Your task to perform on an android device: Open Yahoo.com Image 0: 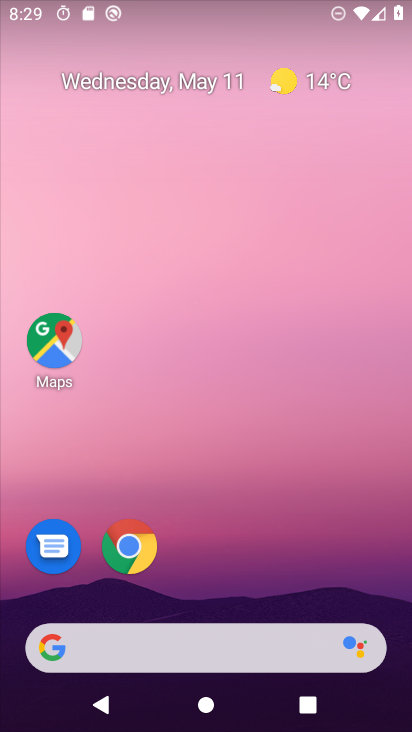
Step 0: click (138, 557)
Your task to perform on an android device: Open Yahoo.com Image 1: 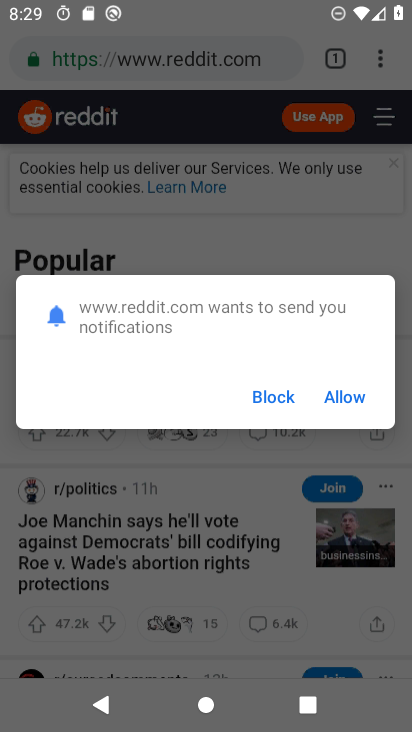
Step 1: click (359, 410)
Your task to perform on an android device: Open Yahoo.com Image 2: 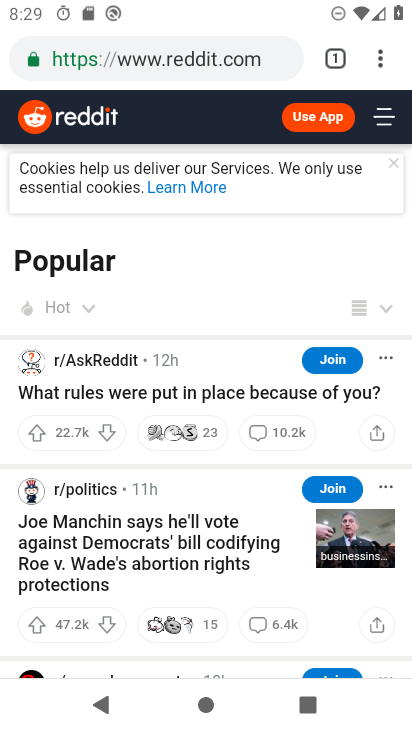
Step 2: click (151, 44)
Your task to perform on an android device: Open Yahoo.com Image 3: 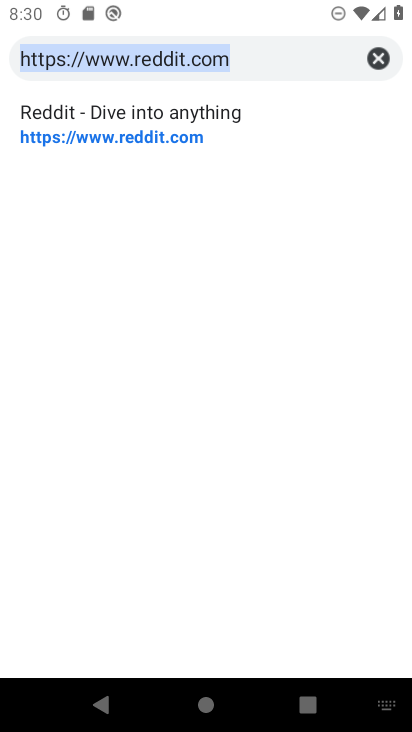
Step 3: type "yahoo.com"
Your task to perform on an android device: Open Yahoo.com Image 4: 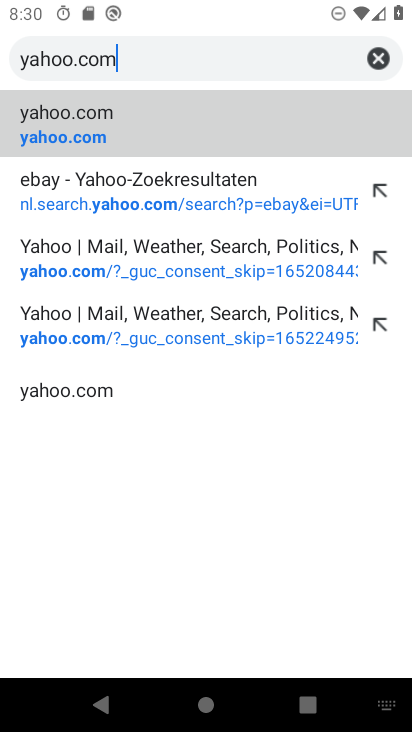
Step 4: click (253, 145)
Your task to perform on an android device: Open Yahoo.com Image 5: 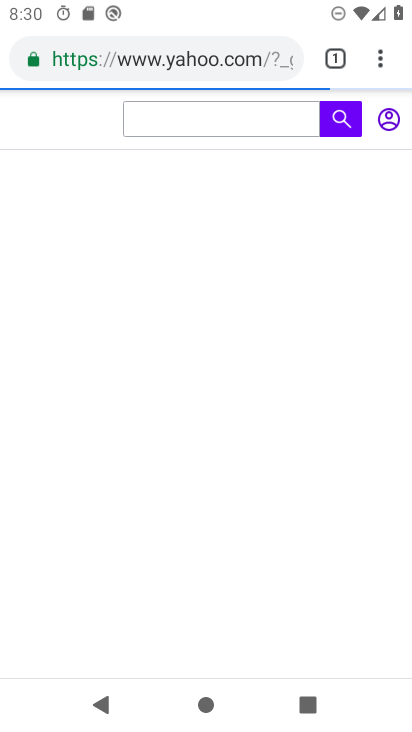
Step 5: task complete